Your task to perform on an android device: delete browsing data in the chrome app Image 0: 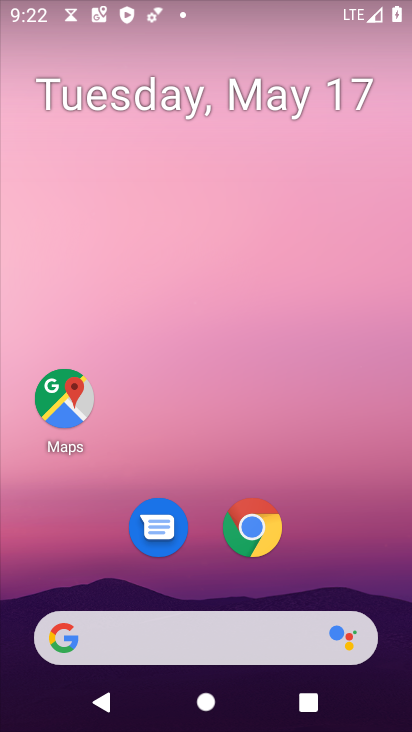
Step 0: press home button
Your task to perform on an android device: delete browsing data in the chrome app Image 1: 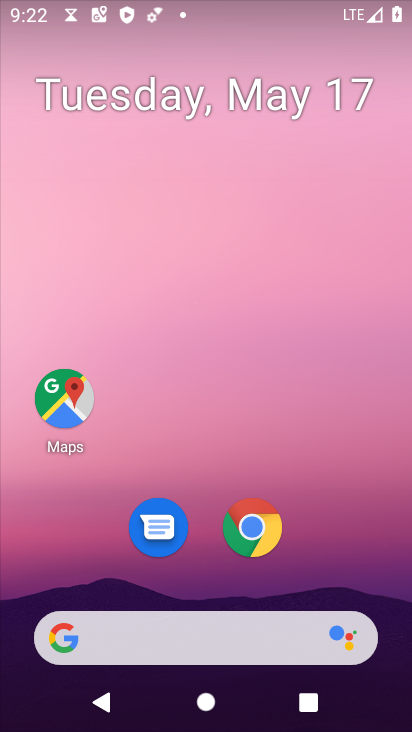
Step 1: click (257, 518)
Your task to perform on an android device: delete browsing data in the chrome app Image 2: 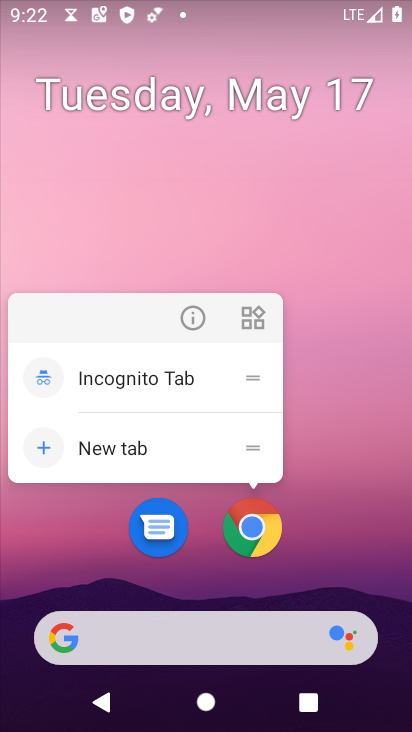
Step 2: click (253, 539)
Your task to perform on an android device: delete browsing data in the chrome app Image 3: 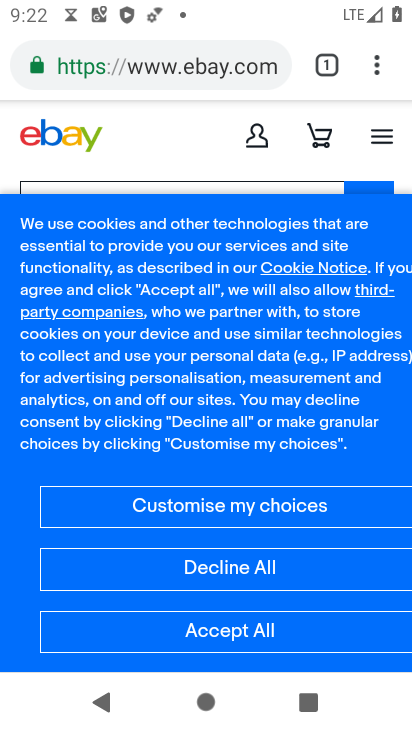
Step 3: drag from (378, 66) to (228, 584)
Your task to perform on an android device: delete browsing data in the chrome app Image 4: 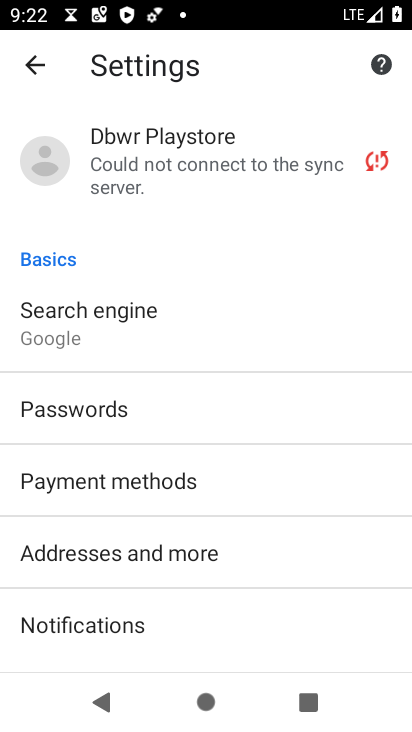
Step 4: drag from (236, 649) to (295, 350)
Your task to perform on an android device: delete browsing data in the chrome app Image 5: 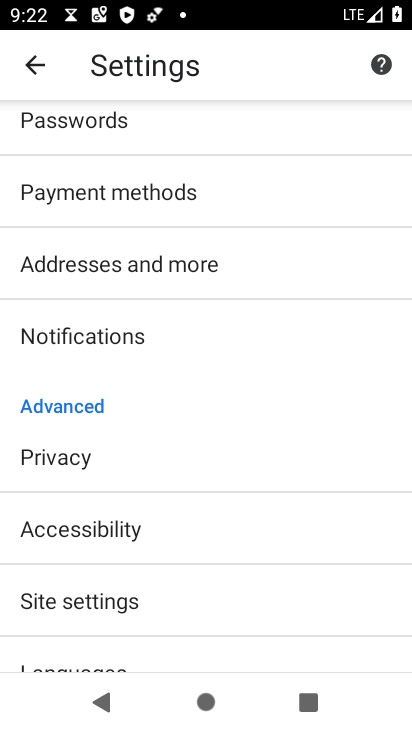
Step 5: click (66, 450)
Your task to perform on an android device: delete browsing data in the chrome app Image 6: 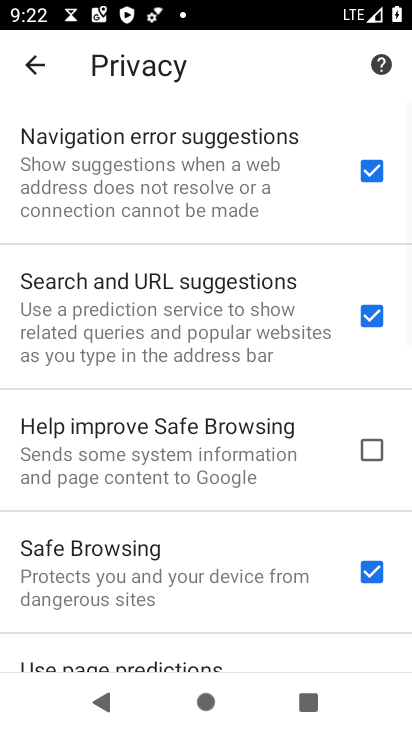
Step 6: drag from (218, 634) to (323, 216)
Your task to perform on an android device: delete browsing data in the chrome app Image 7: 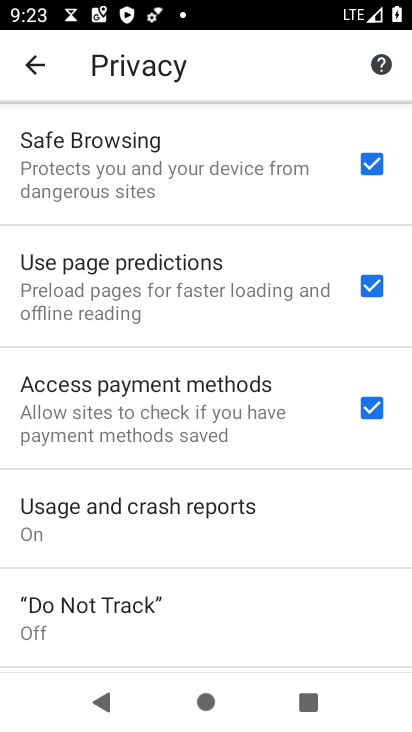
Step 7: drag from (208, 604) to (257, 252)
Your task to perform on an android device: delete browsing data in the chrome app Image 8: 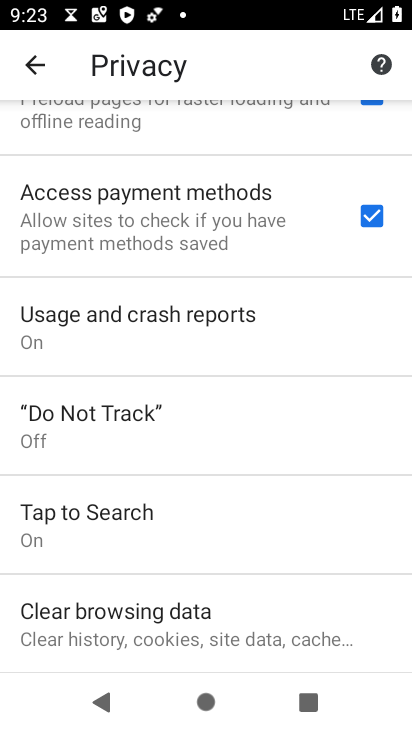
Step 8: click (148, 618)
Your task to perform on an android device: delete browsing data in the chrome app Image 9: 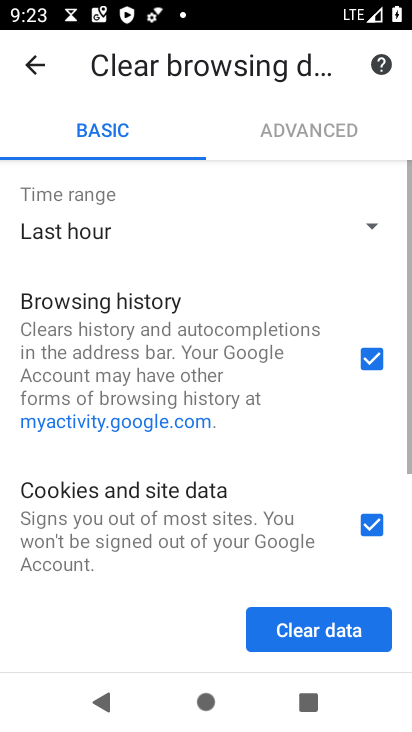
Step 9: drag from (248, 502) to (334, 253)
Your task to perform on an android device: delete browsing data in the chrome app Image 10: 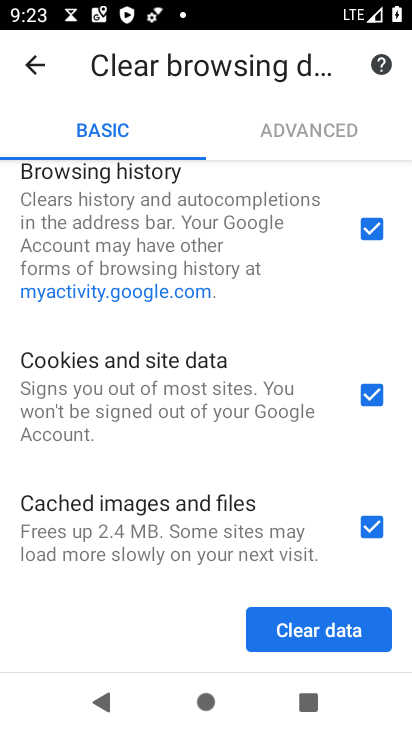
Step 10: click (324, 630)
Your task to perform on an android device: delete browsing data in the chrome app Image 11: 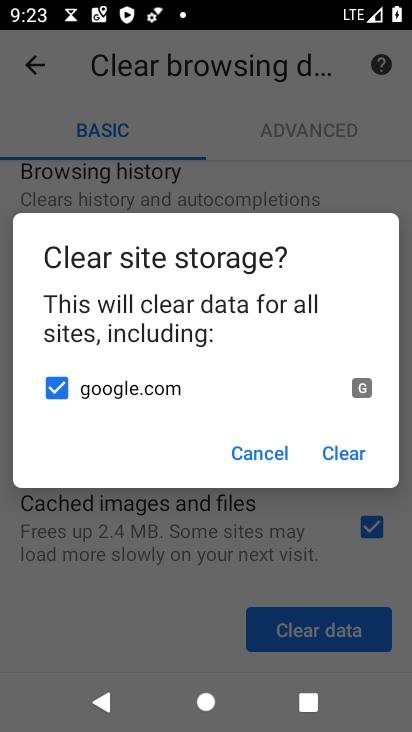
Step 11: click (351, 461)
Your task to perform on an android device: delete browsing data in the chrome app Image 12: 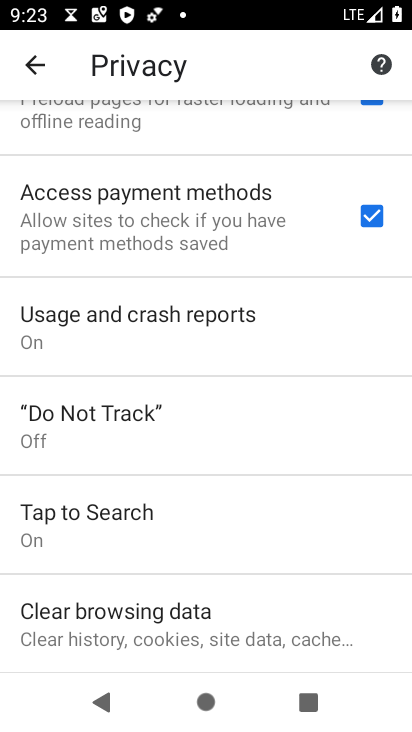
Step 12: task complete